Your task to perform on an android device: open app "Yahoo Mail" (install if not already installed) and enter user name: "lawsuit@inbox.com" and password: "pooch" Image 0: 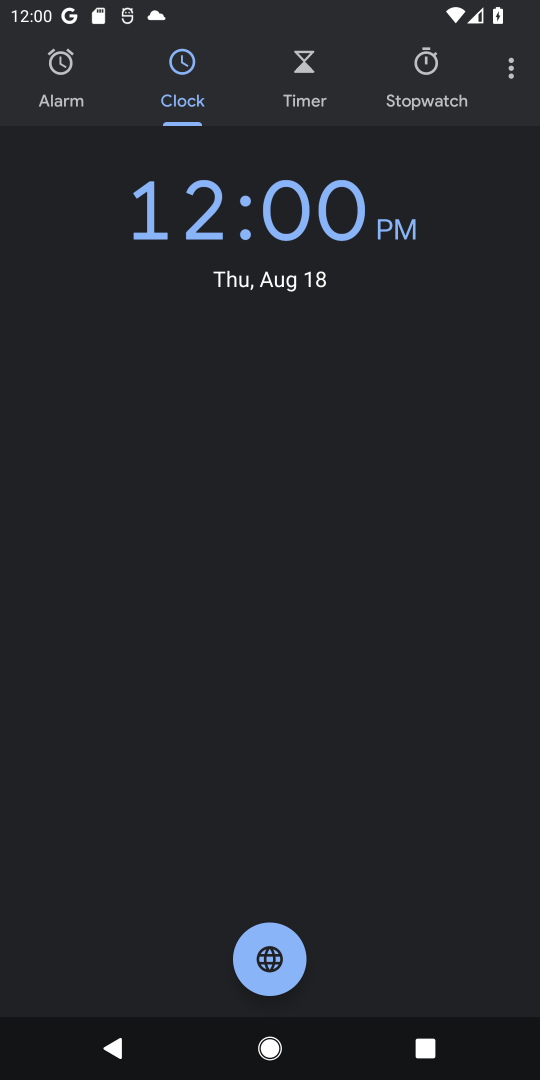
Step 0: press home button
Your task to perform on an android device: open app "Yahoo Mail" (install if not already installed) and enter user name: "lawsuit@inbox.com" and password: "pooch" Image 1: 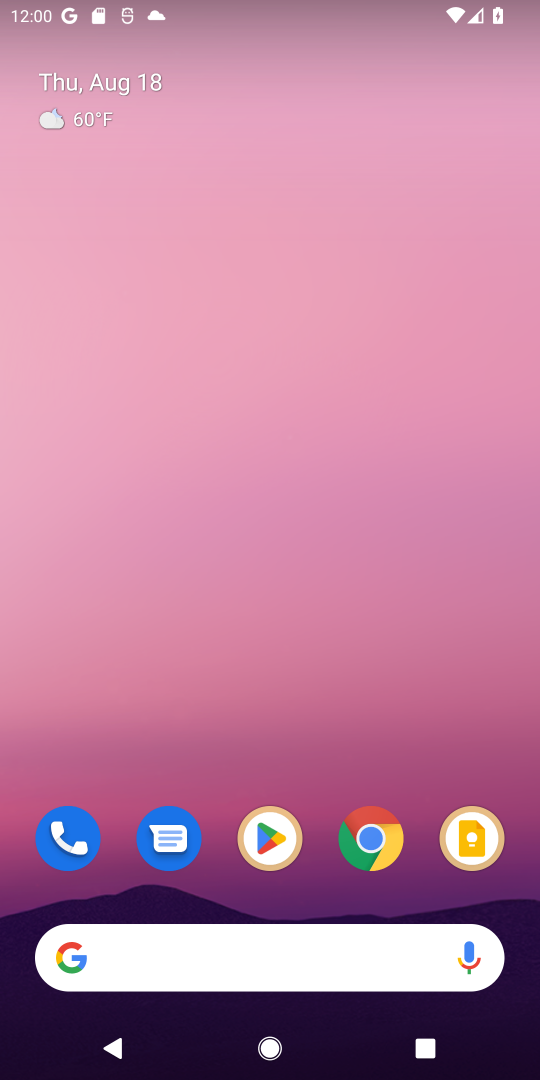
Step 1: click (293, 836)
Your task to perform on an android device: open app "Yahoo Mail" (install if not already installed) and enter user name: "lawsuit@inbox.com" and password: "pooch" Image 2: 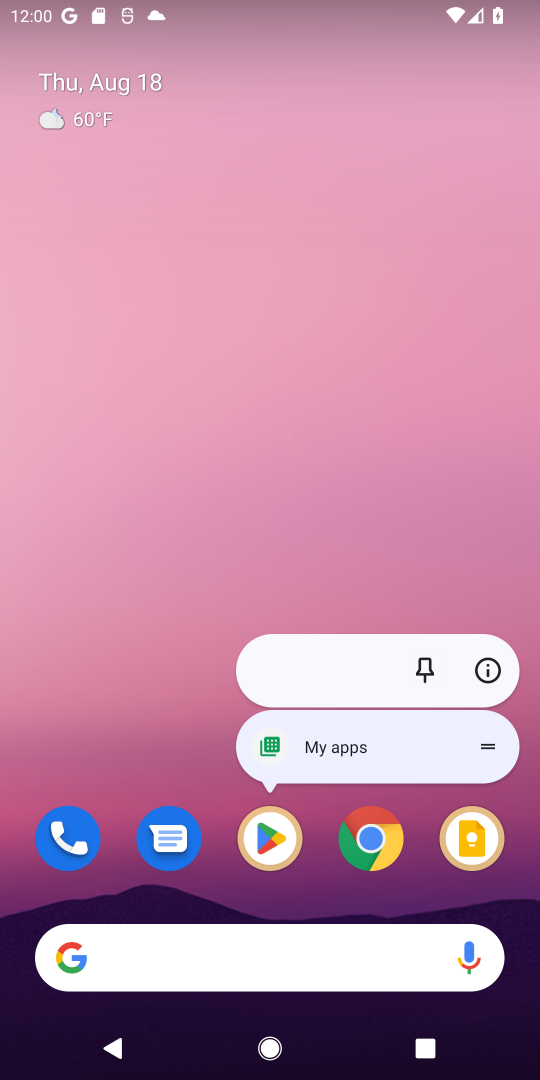
Step 2: click (293, 836)
Your task to perform on an android device: open app "Yahoo Mail" (install if not already installed) and enter user name: "lawsuit@inbox.com" and password: "pooch" Image 3: 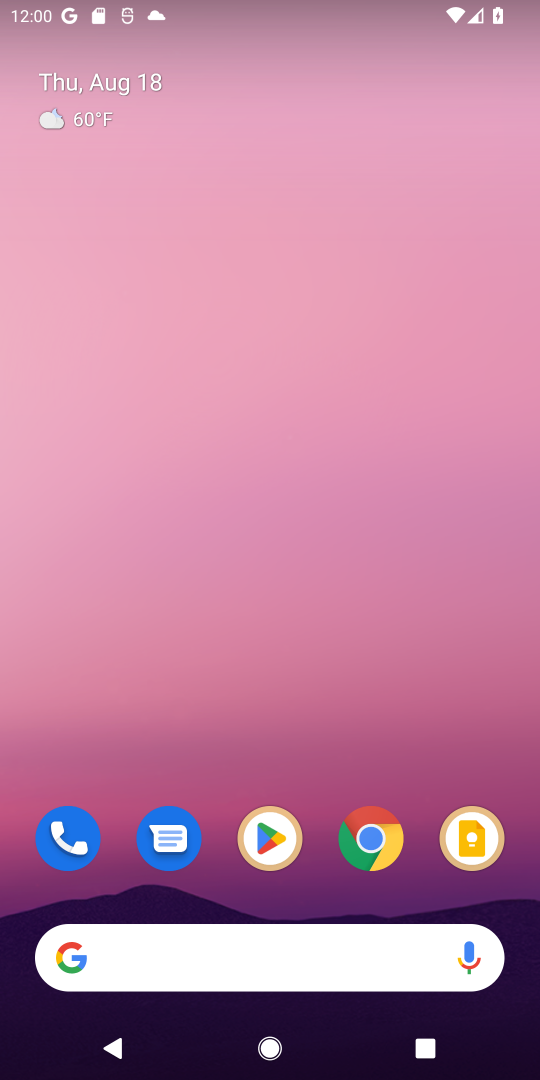
Step 3: click (263, 832)
Your task to perform on an android device: open app "Yahoo Mail" (install if not already installed) and enter user name: "lawsuit@inbox.com" and password: "pooch" Image 4: 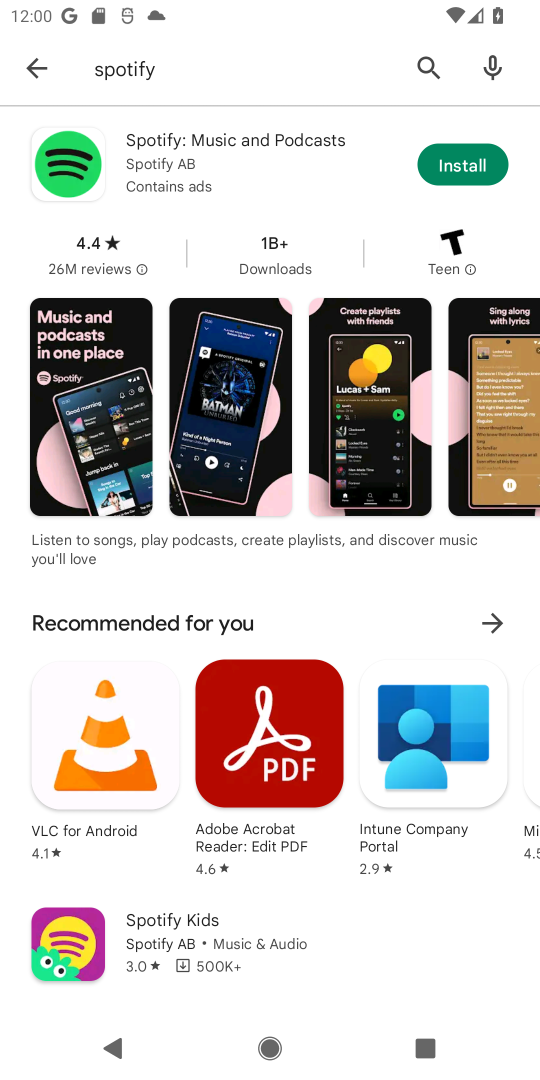
Step 4: click (427, 39)
Your task to perform on an android device: open app "Yahoo Mail" (install if not already installed) and enter user name: "lawsuit@inbox.com" and password: "pooch" Image 5: 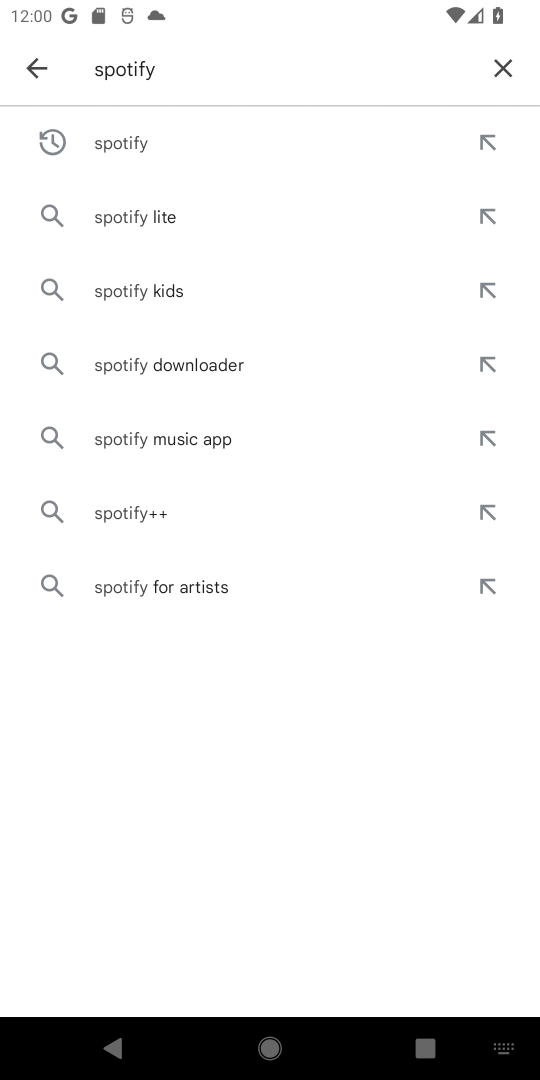
Step 5: click (497, 73)
Your task to perform on an android device: open app "Yahoo Mail" (install if not already installed) and enter user name: "lawsuit@inbox.com" and password: "pooch" Image 6: 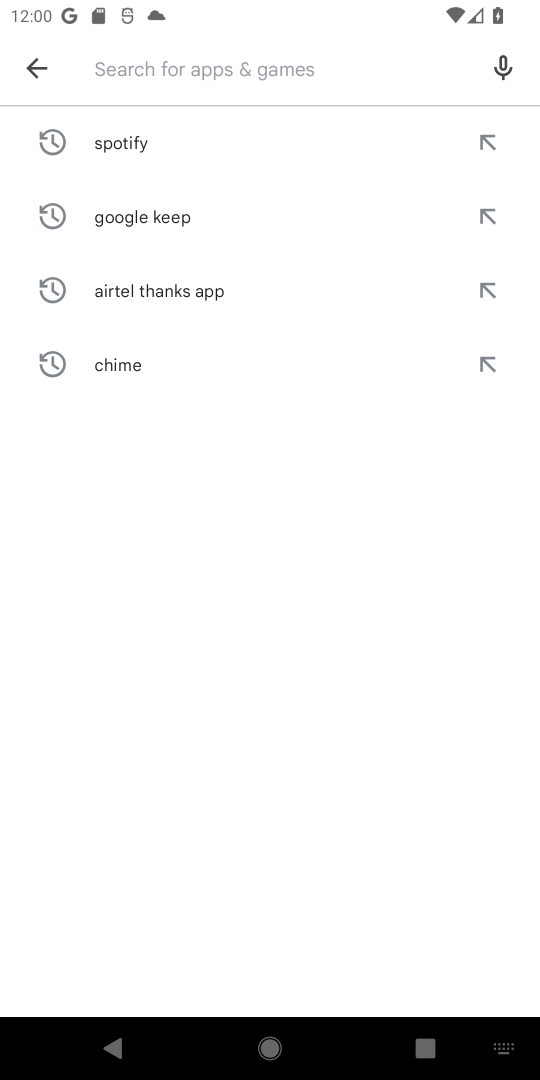
Step 6: type "Yahoo Mail"
Your task to perform on an android device: open app "Yahoo Mail" (install if not already installed) and enter user name: "lawsuit@inbox.com" and password: "pooch" Image 7: 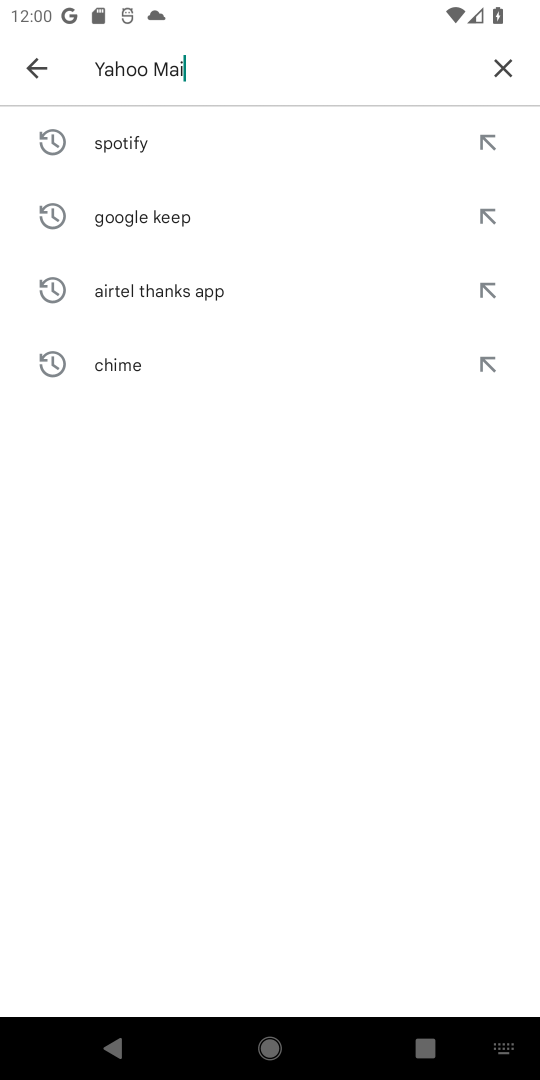
Step 7: type ""
Your task to perform on an android device: open app "Yahoo Mail" (install if not already installed) and enter user name: "lawsuit@inbox.com" and password: "pooch" Image 8: 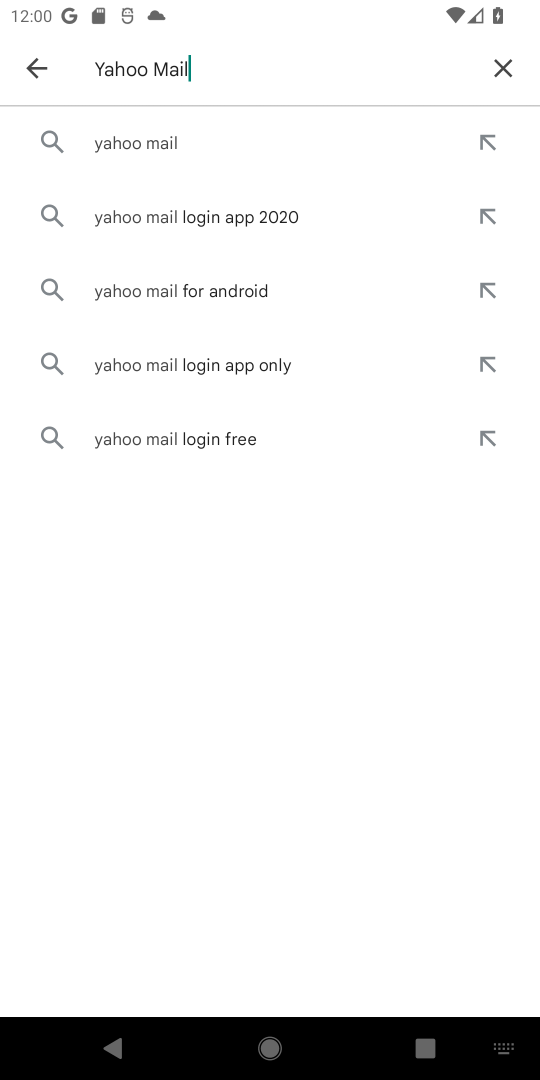
Step 8: click (213, 140)
Your task to perform on an android device: open app "Yahoo Mail" (install if not already installed) and enter user name: "lawsuit@inbox.com" and password: "pooch" Image 9: 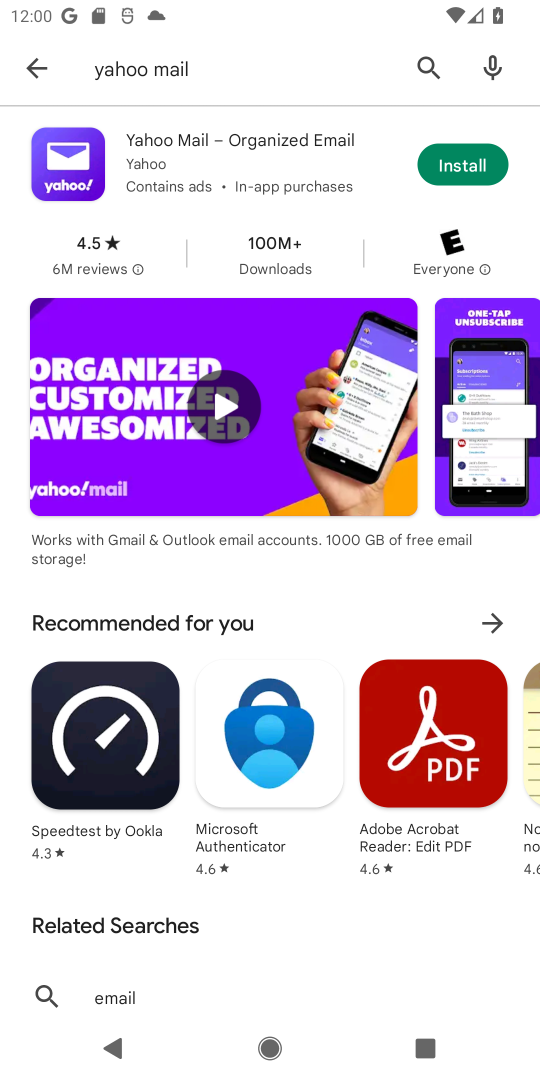
Step 9: click (465, 164)
Your task to perform on an android device: open app "Yahoo Mail" (install if not already installed) and enter user name: "lawsuit@inbox.com" and password: "pooch" Image 10: 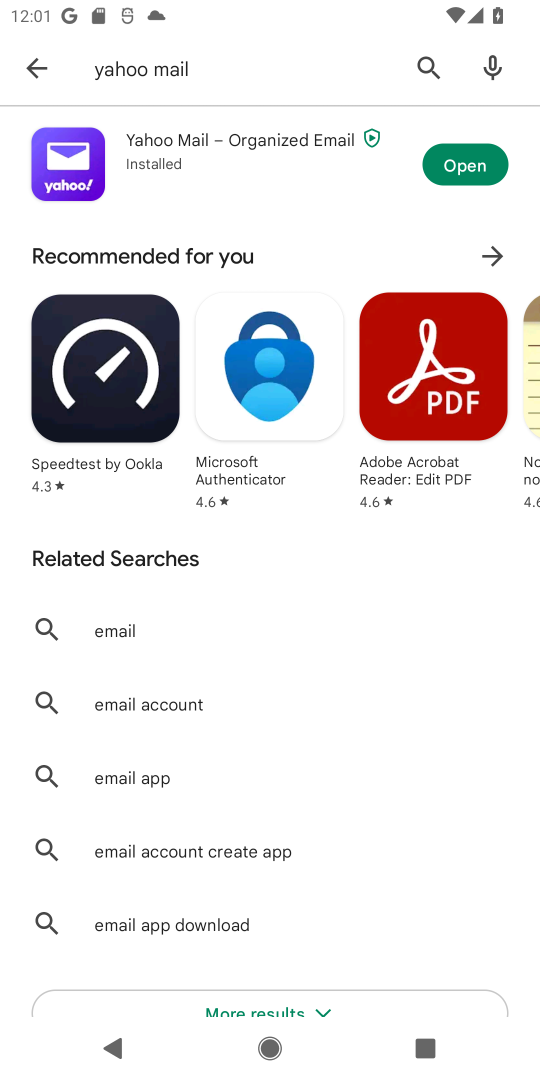
Step 10: click (465, 164)
Your task to perform on an android device: open app "Yahoo Mail" (install if not already installed) and enter user name: "lawsuit@inbox.com" and password: "pooch" Image 11: 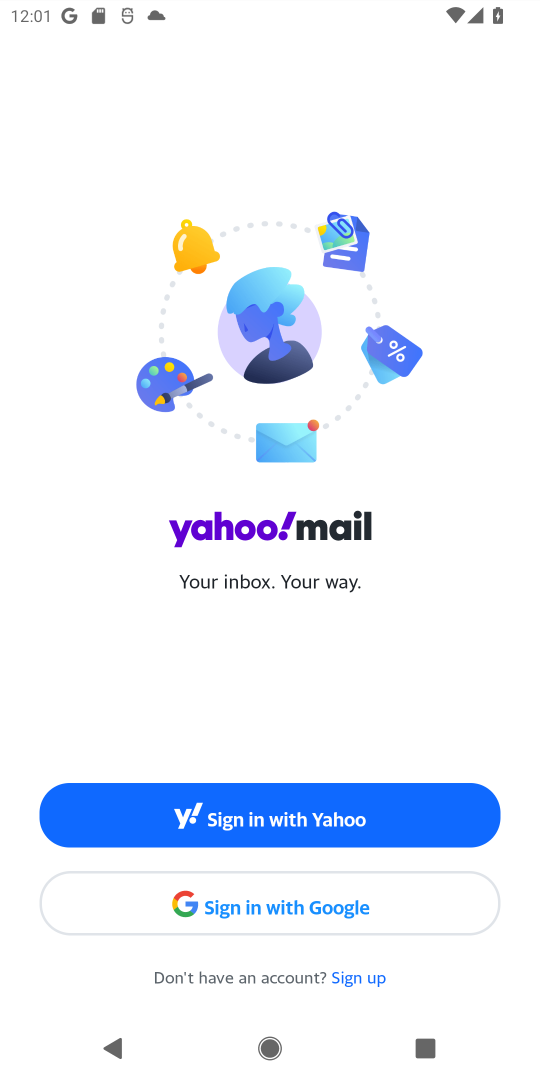
Step 11: task complete